Your task to perform on an android device: turn off notifications settings in the gmail app Image 0: 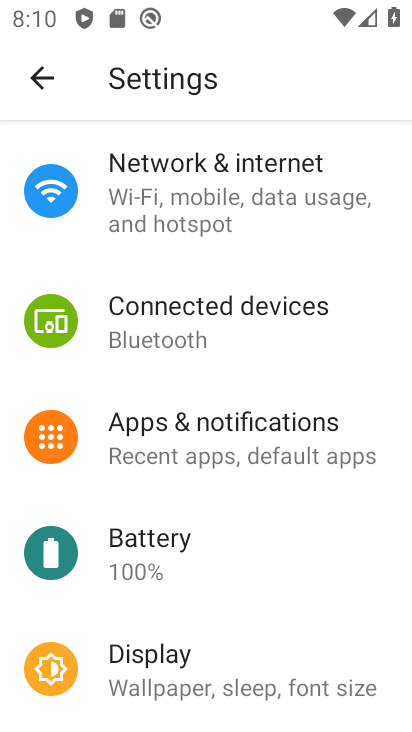
Step 0: press home button
Your task to perform on an android device: turn off notifications settings in the gmail app Image 1: 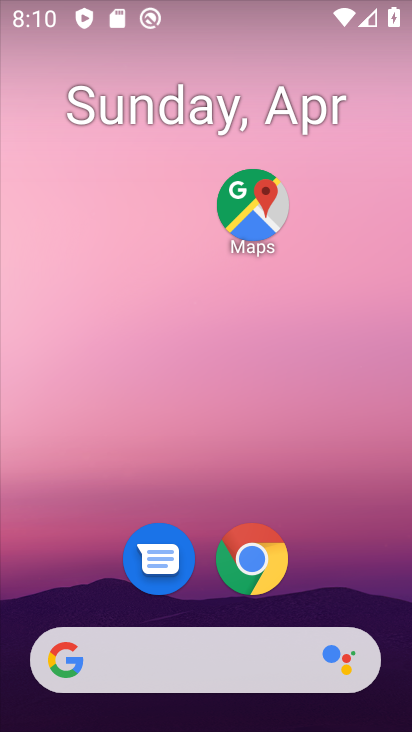
Step 1: drag from (0, 610) to (300, 165)
Your task to perform on an android device: turn off notifications settings in the gmail app Image 2: 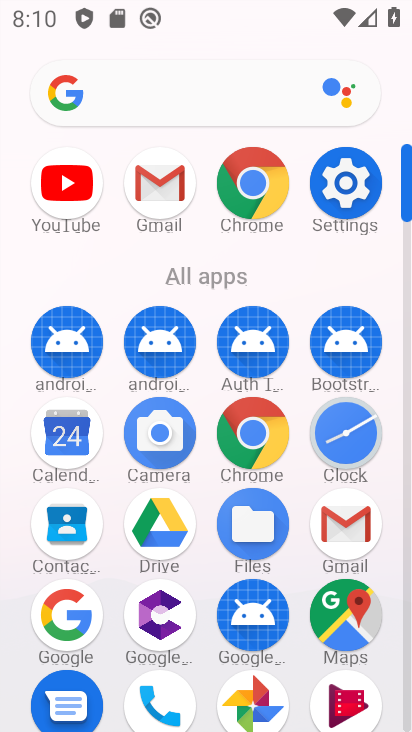
Step 2: click (357, 530)
Your task to perform on an android device: turn off notifications settings in the gmail app Image 3: 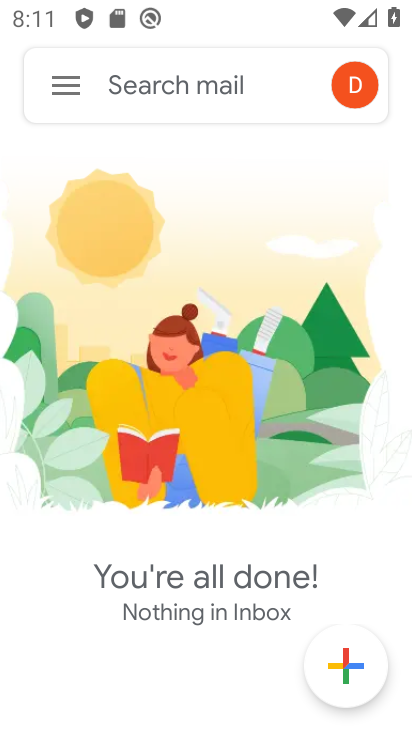
Step 3: click (55, 91)
Your task to perform on an android device: turn off notifications settings in the gmail app Image 4: 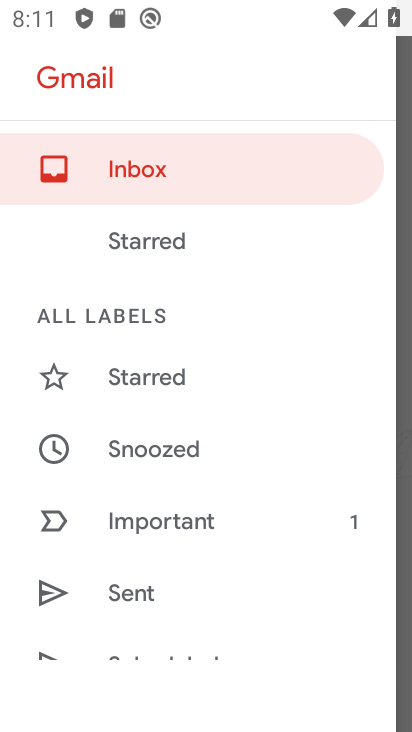
Step 4: drag from (117, 563) to (224, 196)
Your task to perform on an android device: turn off notifications settings in the gmail app Image 5: 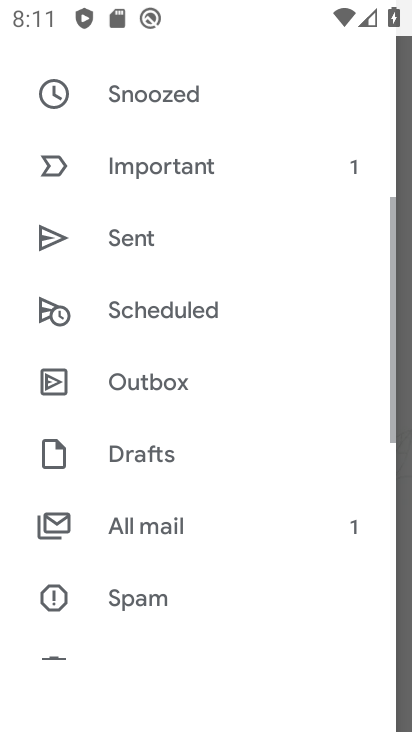
Step 5: drag from (135, 595) to (224, 280)
Your task to perform on an android device: turn off notifications settings in the gmail app Image 6: 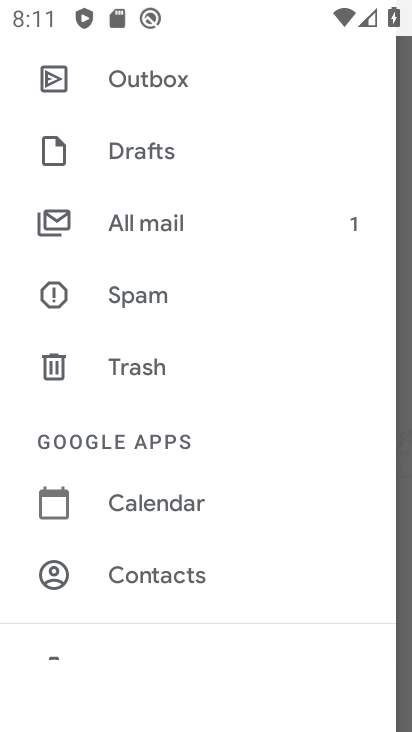
Step 6: drag from (129, 596) to (234, 266)
Your task to perform on an android device: turn off notifications settings in the gmail app Image 7: 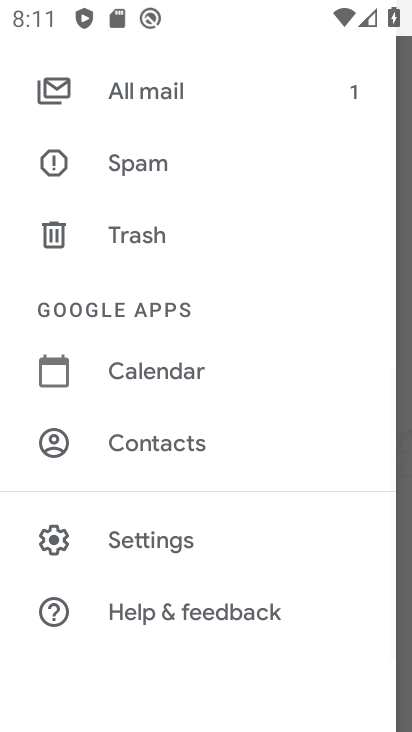
Step 7: click (141, 524)
Your task to perform on an android device: turn off notifications settings in the gmail app Image 8: 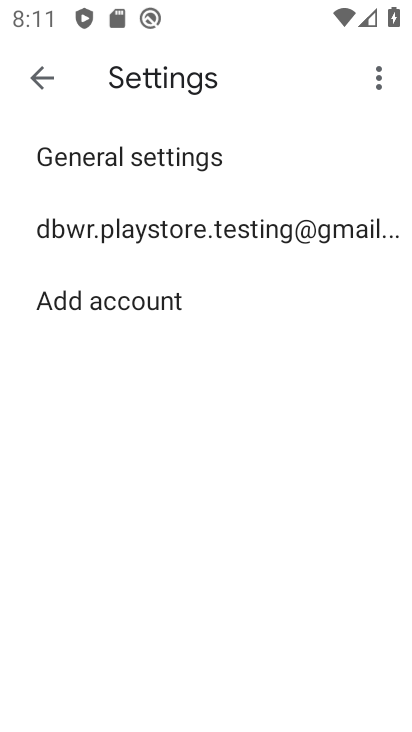
Step 8: click (153, 233)
Your task to perform on an android device: turn off notifications settings in the gmail app Image 9: 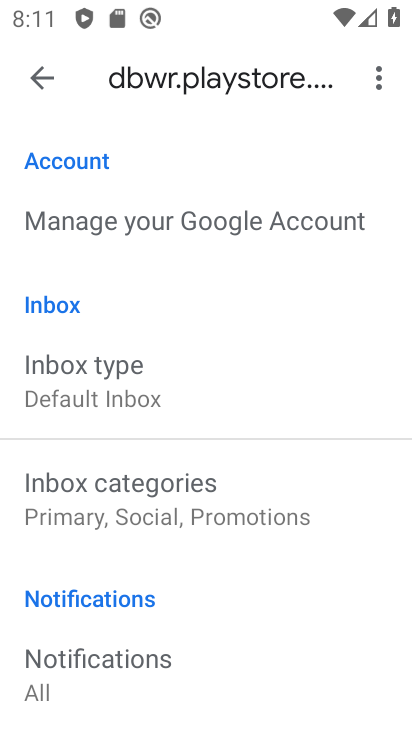
Step 9: drag from (132, 619) to (257, 281)
Your task to perform on an android device: turn off notifications settings in the gmail app Image 10: 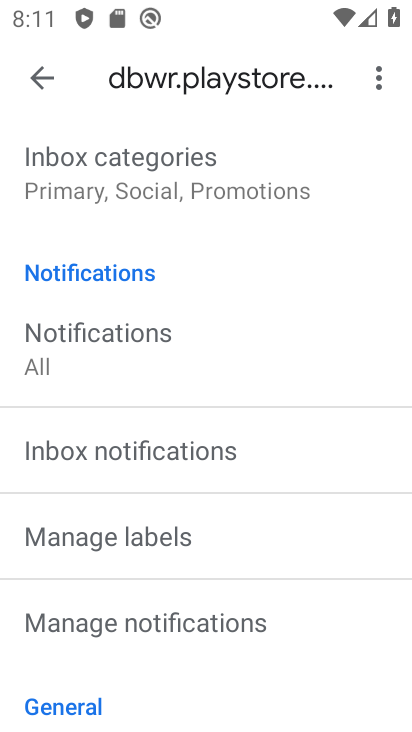
Step 10: drag from (172, 442) to (258, 134)
Your task to perform on an android device: turn off notifications settings in the gmail app Image 11: 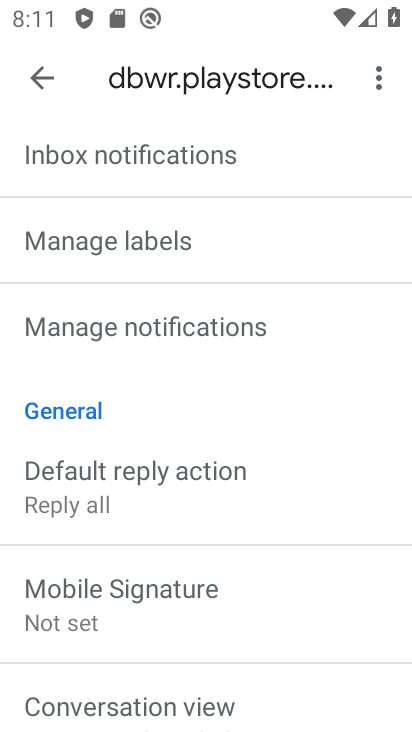
Step 11: click (161, 337)
Your task to perform on an android device: turn off notifications settings in the gmail app Image 12: 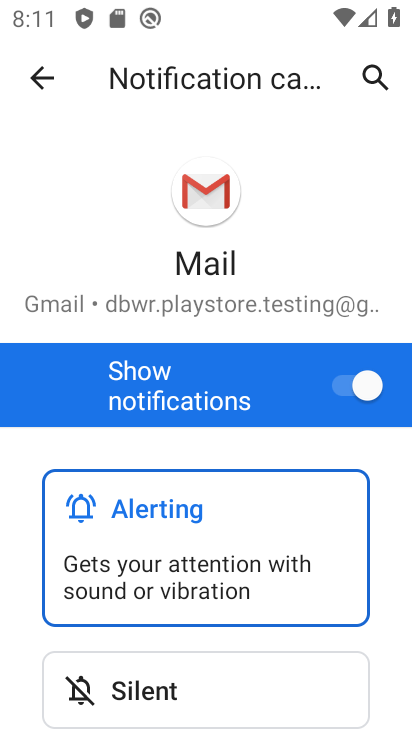
Step 12: click (361, 386)
Your task to perform on an android device: turn off notifications settings in the gmail app Image 13: 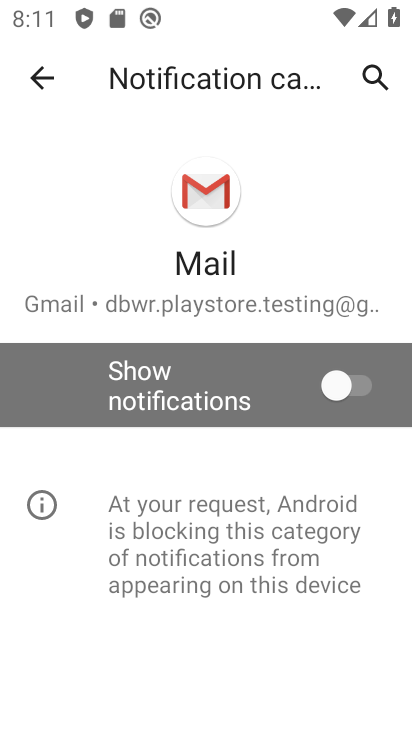
Step 13: task complete